Your task to perform on an android device: change keyboard looks Image 0: 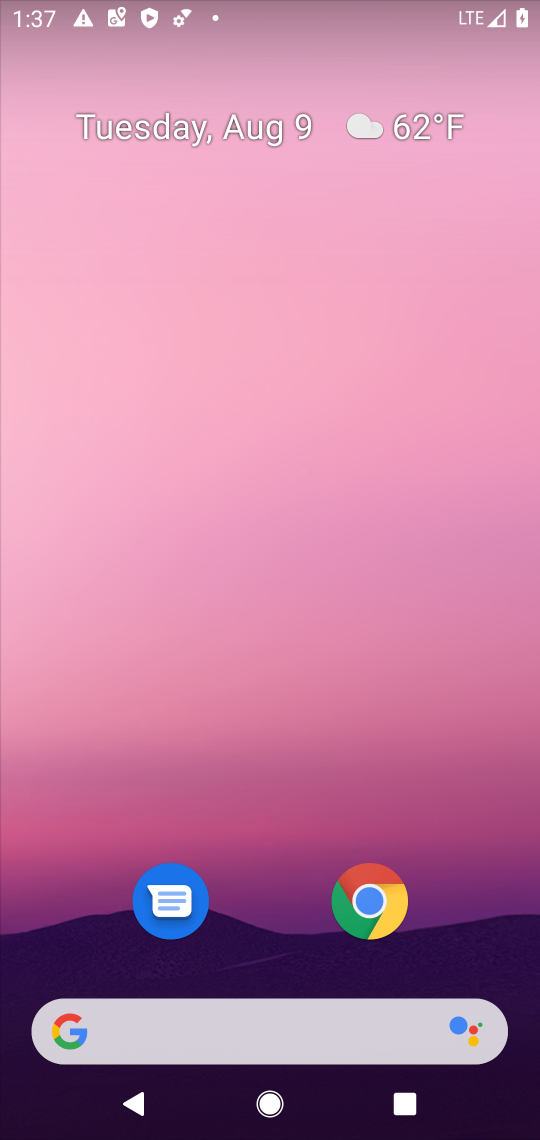
Step 0: drag from (509, 964) to (398, 172)
Your task to perform on an android device: change keyboard looks Image 1: 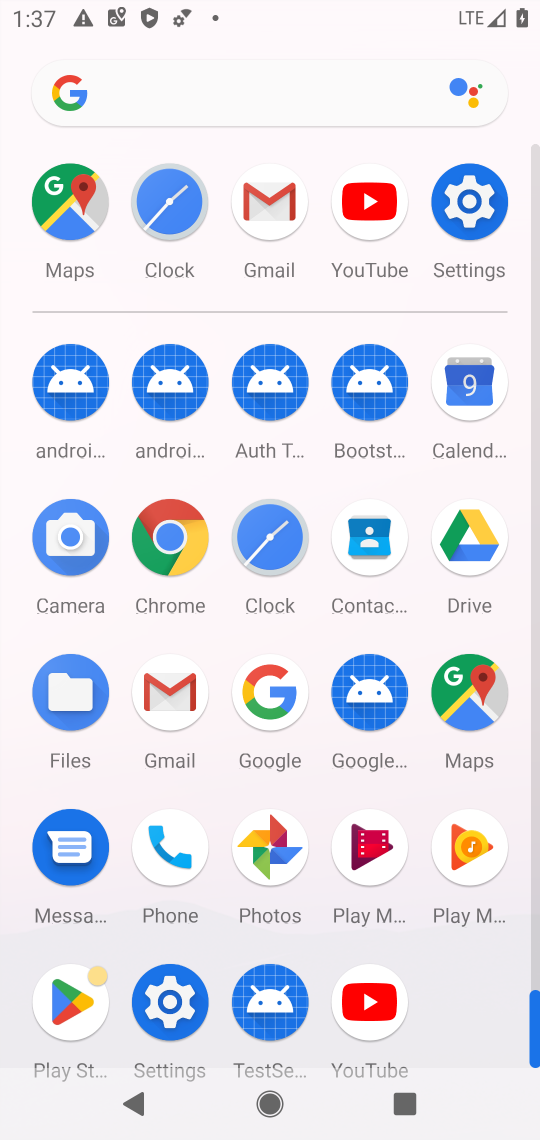
Step 1: click (169, 1002)
Your task to perform on an android device: change keyboard looks Image 2: 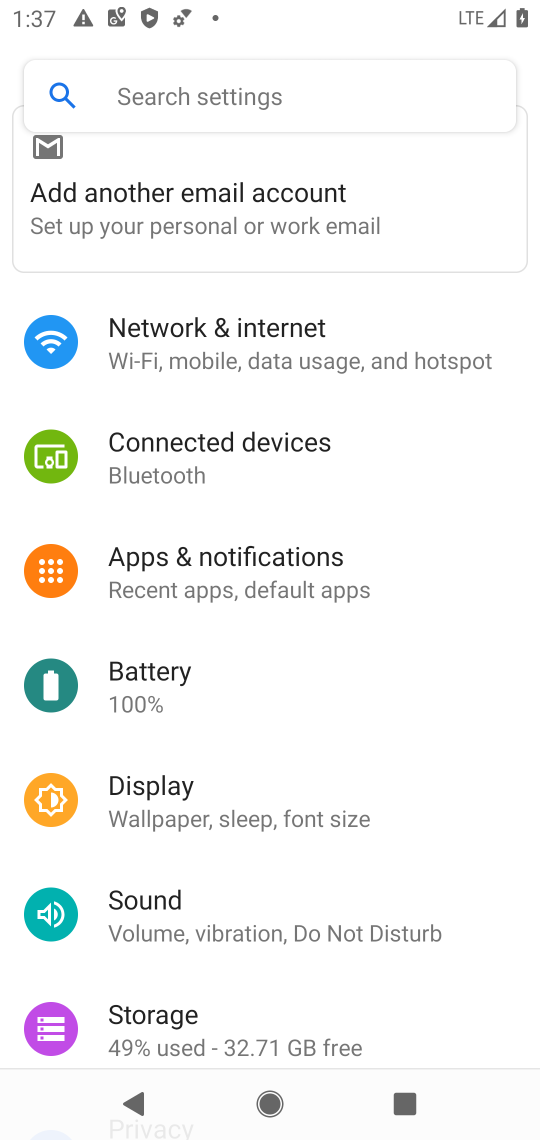
Step 2: drag from (445, 973) to (434, 421)
Your task to perform on an android device: change keyboard looks Image 3: 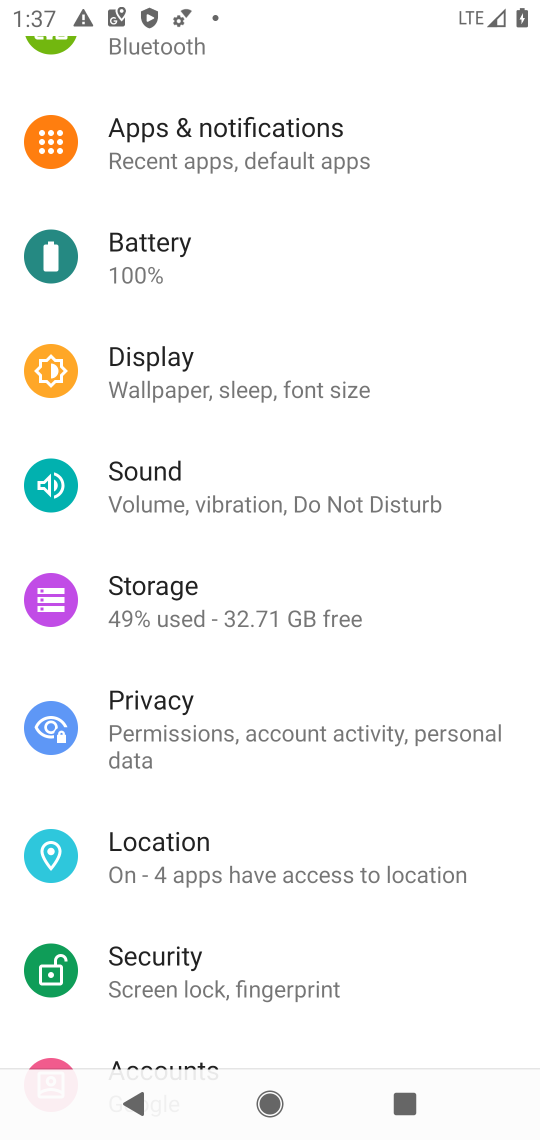
Step 3: drag from (426, 977) to (443, 290)
Your task to perform on an android device: change keyboard looks Image 4: 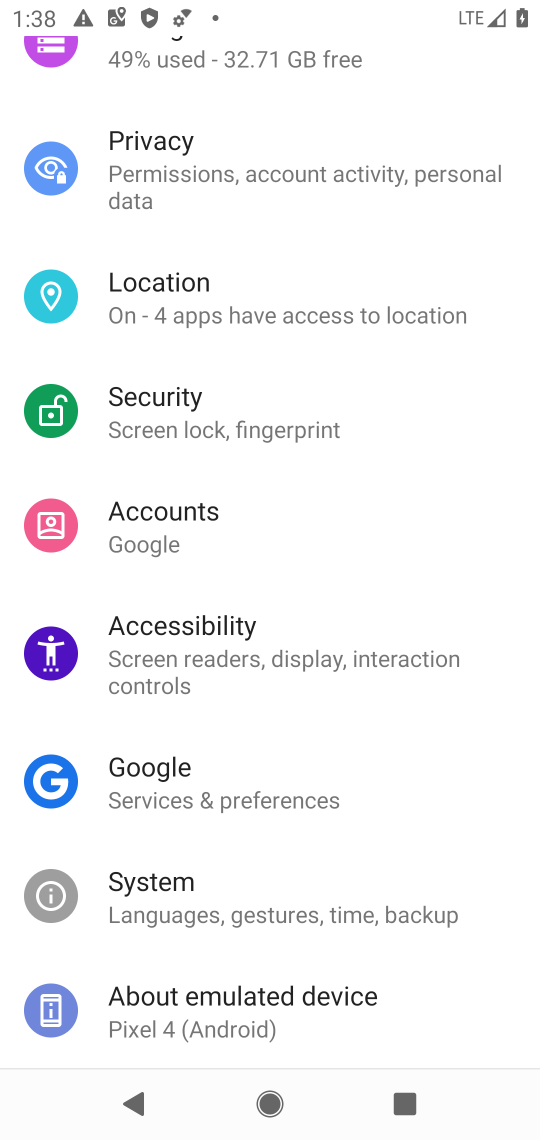
Step 4: click (157, 898)
Your task to perform on an android device: change keyboard looks Image 5: 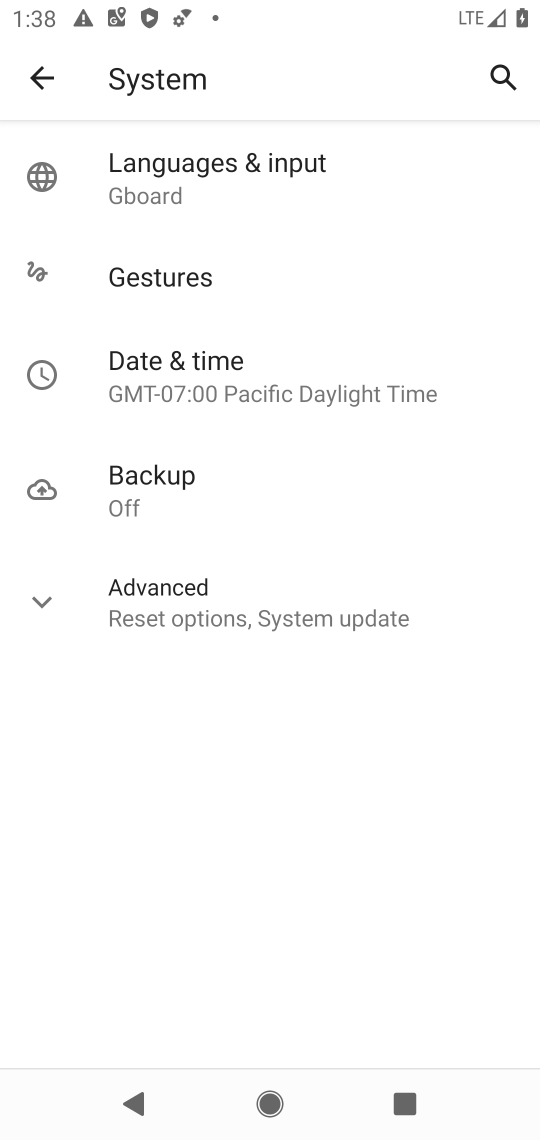
Step 5: click (172, 173)
Your task to perform on an android device: change keyboard looks Image 6: 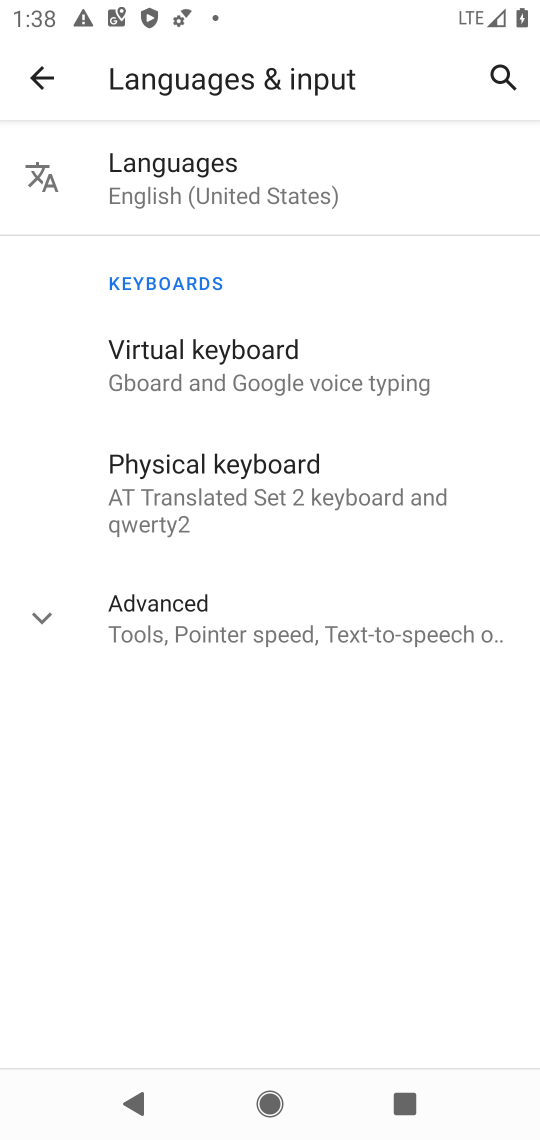
Step 6: click (200, 372)
Your task to perform on an android device: change keyboard looks Image 7: 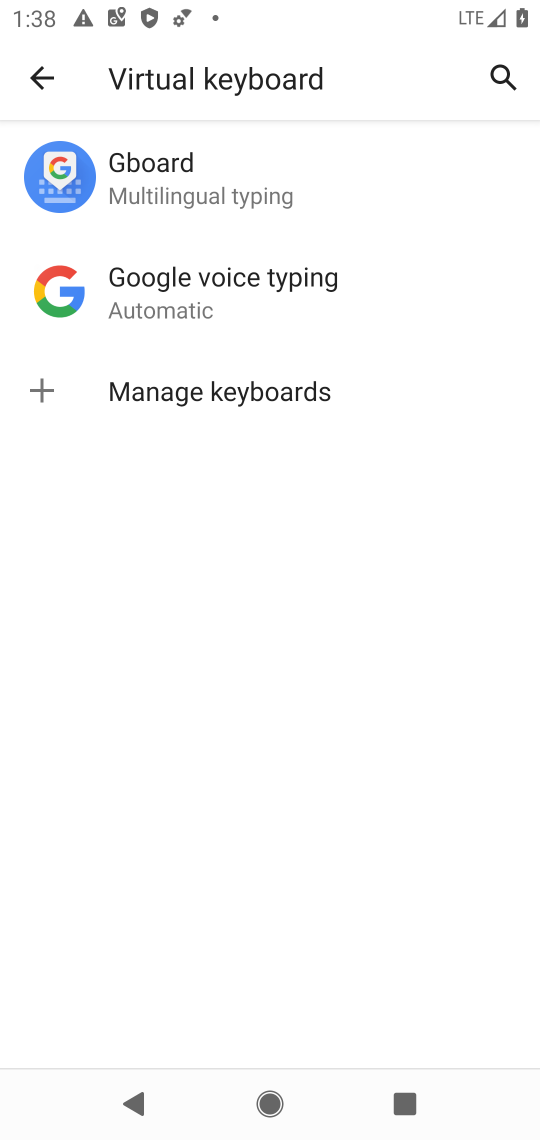
Step 7: click (139, 178)
Your task to perform on an android device: change keyboard looks Image 8: 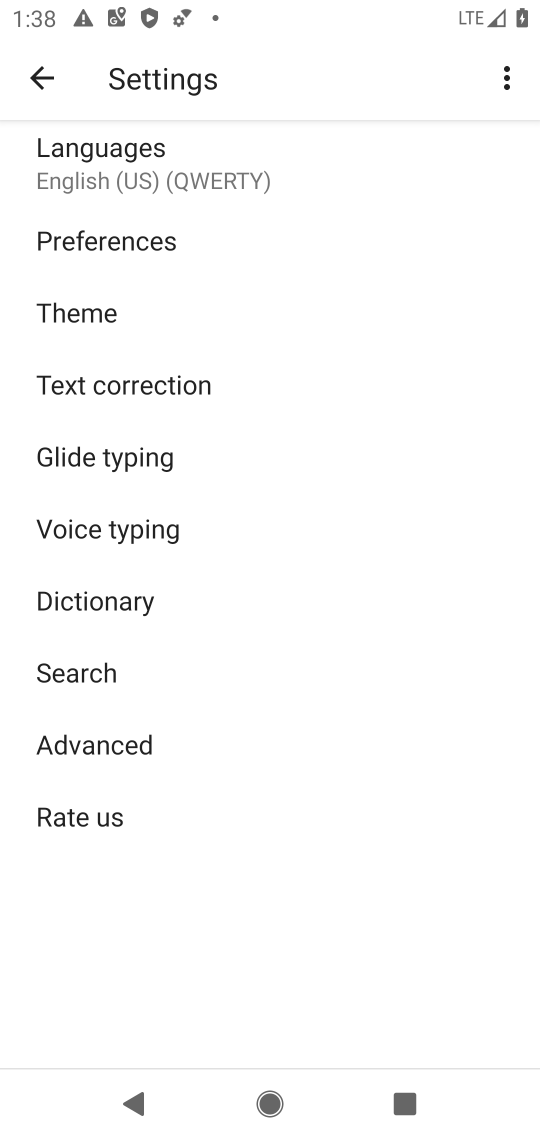
Step 8: click (120, 165)
Your task to perform on an android device: change keyboard looks Image 9: 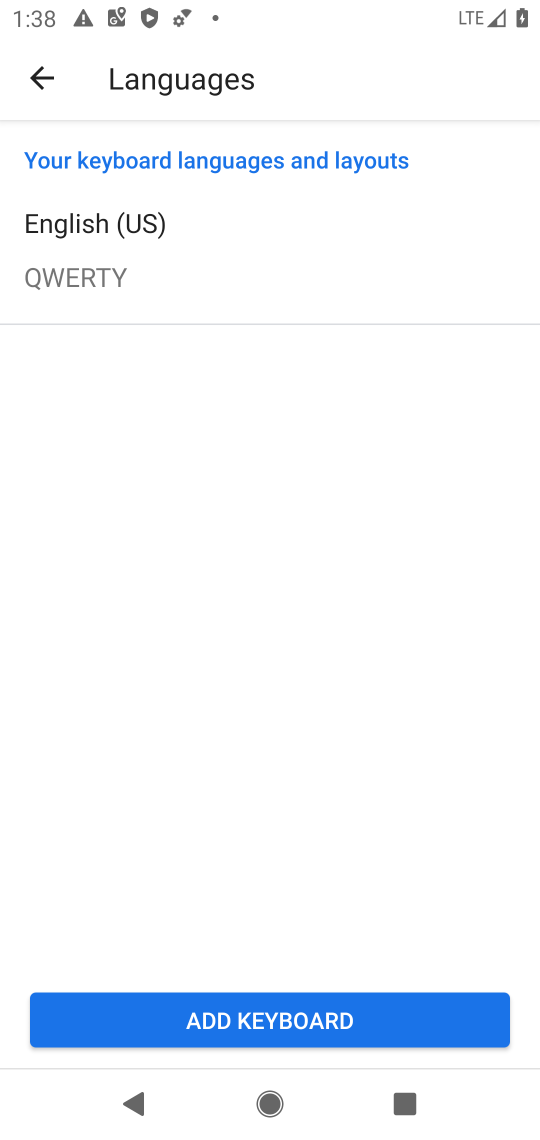
Step 9: click (272, 1027)
Your task to perform on an android device: change keyboard looks Image 10: 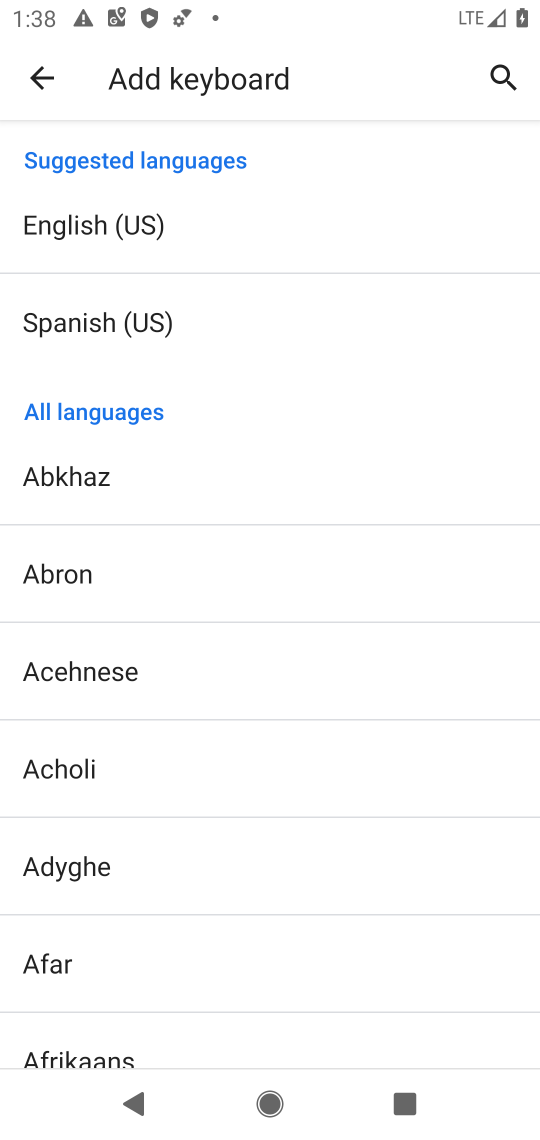
Step 10: drag from (302, 996) to (293, 202)
Your task to perform on an android device: change keyboard looks Image 11: 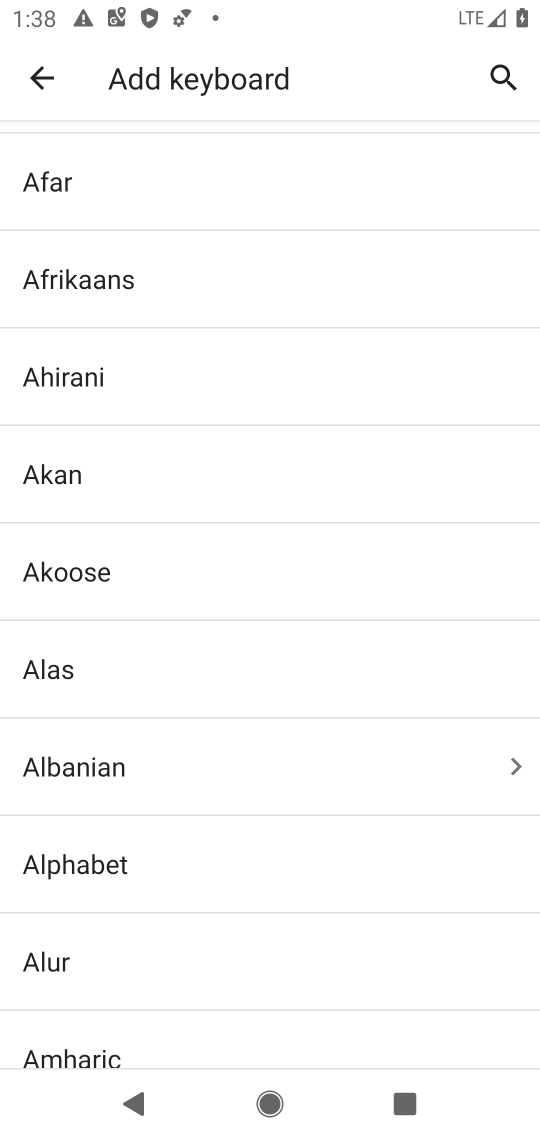
Step 11: drag from (316, 881) to (285, 70)
Your task to perform on an android device: change keyboard looks Image 12: 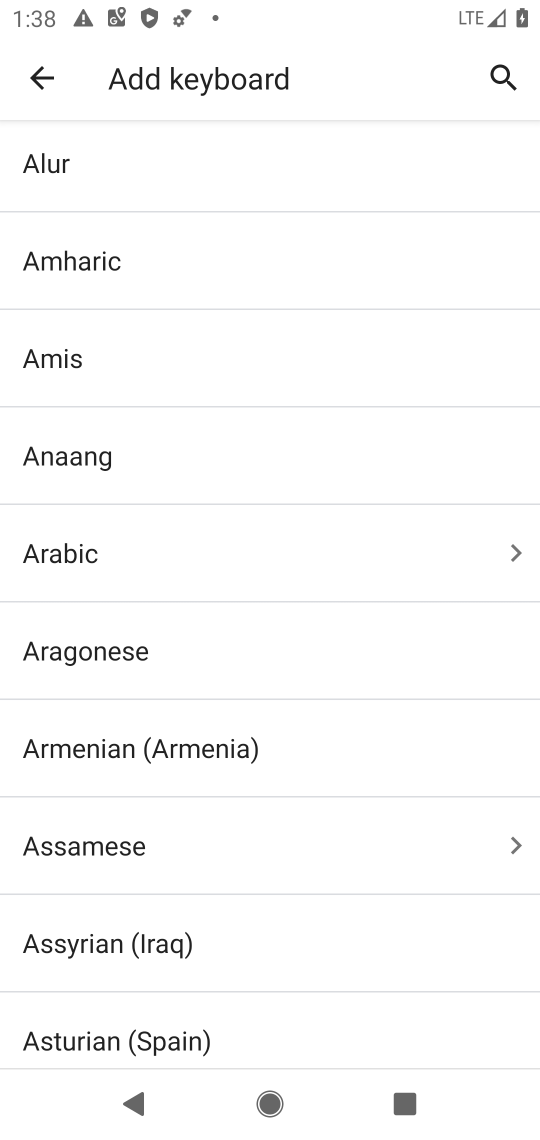
Step 12: drag from (376, 989) to (334, 166)
Your task to perform on an android device: change keyboard looks Image 13: 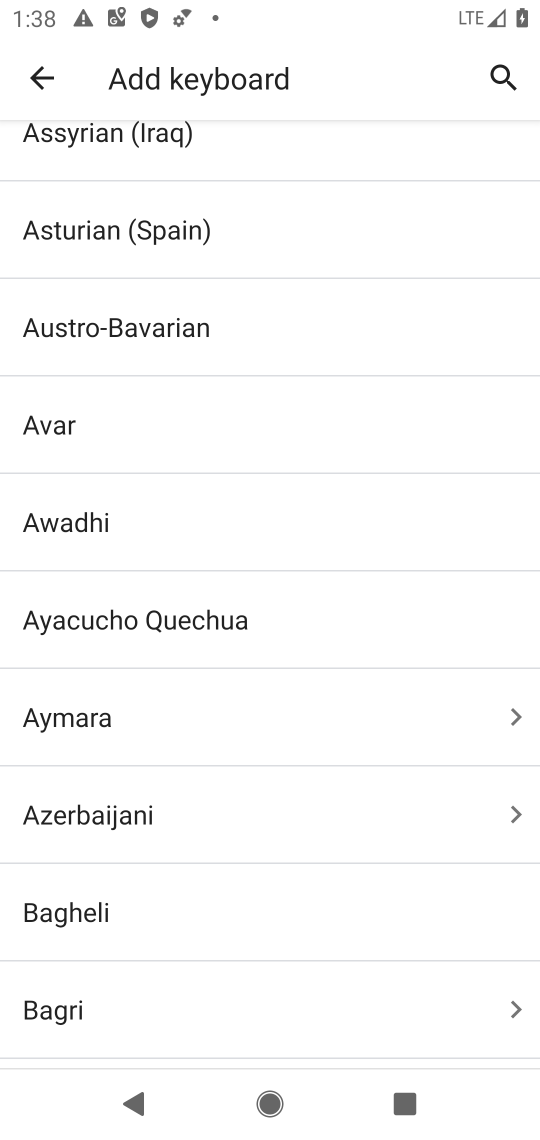
Step 13: click (29, 421)
Your task to perform on an android device: change keyboard looks Image 14: 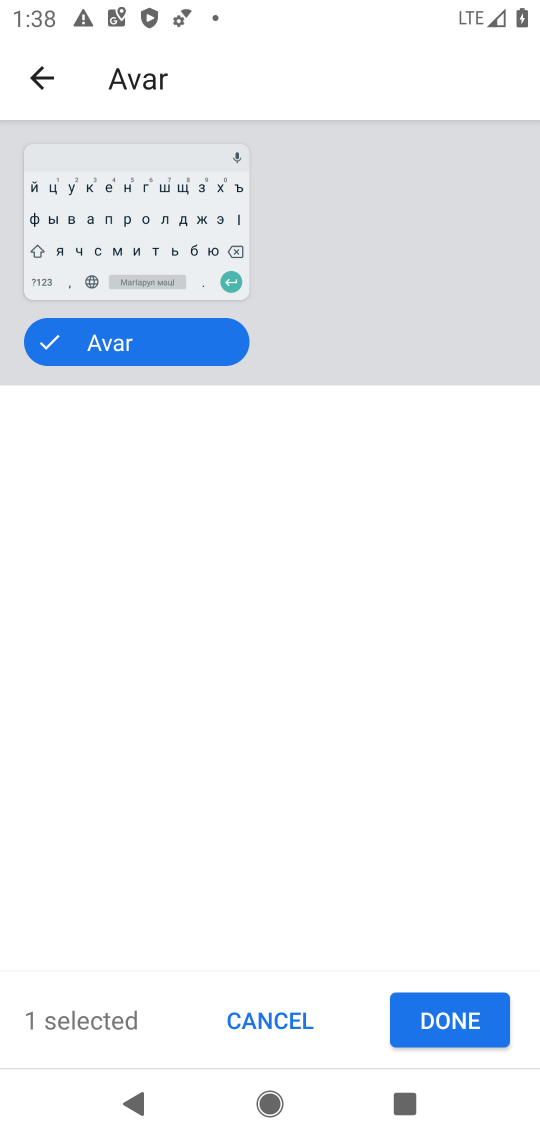
Step 14: click (441, 1012)
Your task to perform on an android device: change keyboard looks Image 15: 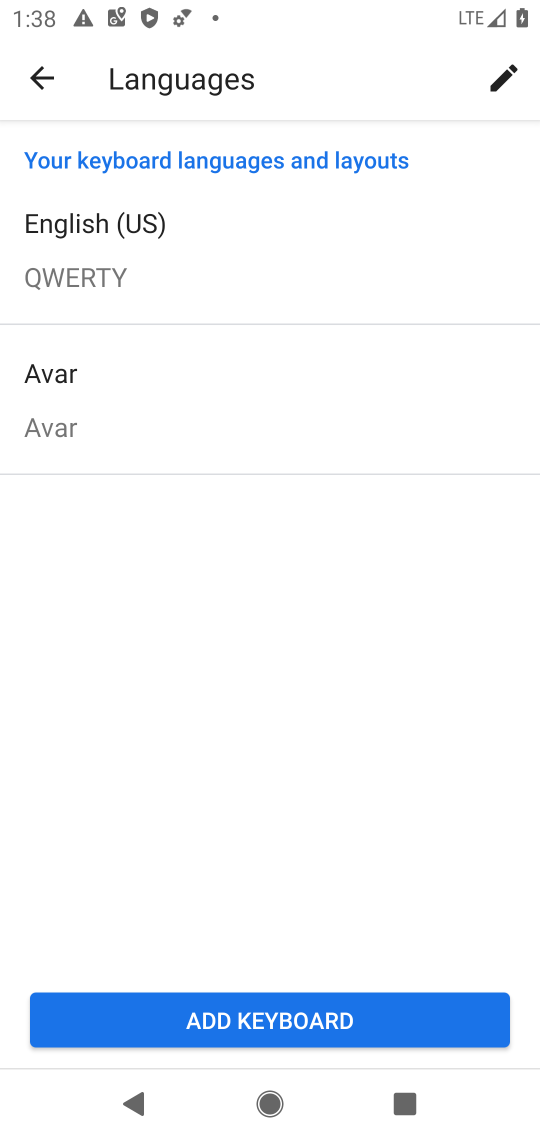
Step 15: task complete